Your task to perform on an android device: turn on javascript in the chrome app Image 0: 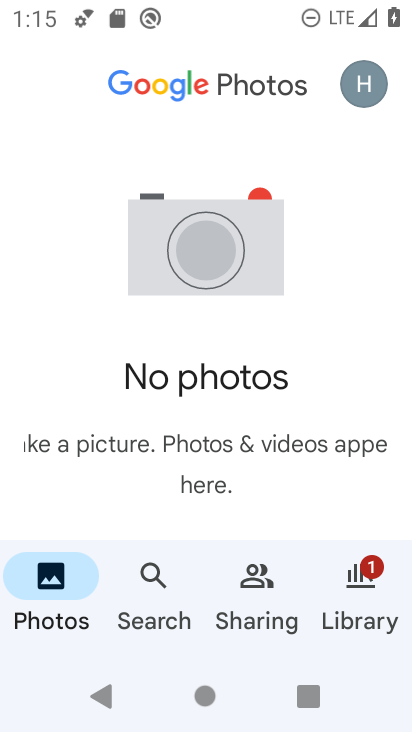
Step 0: press home button
Your task to perform on an android device: turn on javascript in the chrome app Image 1: 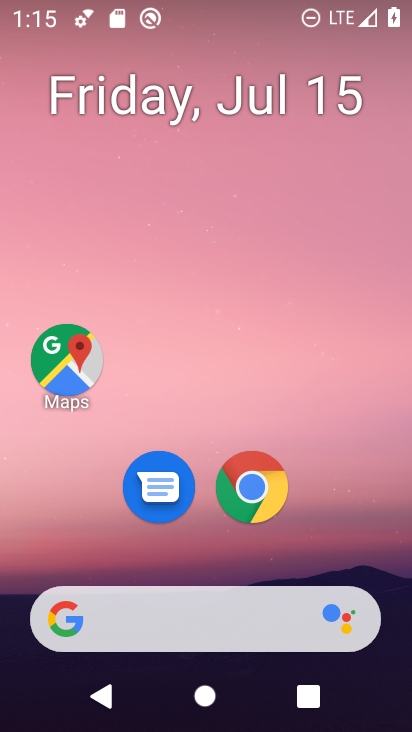
Step 1: click (266, 512)
Your task to perform on an android device: turn on javascript in the chrome app Image 2: 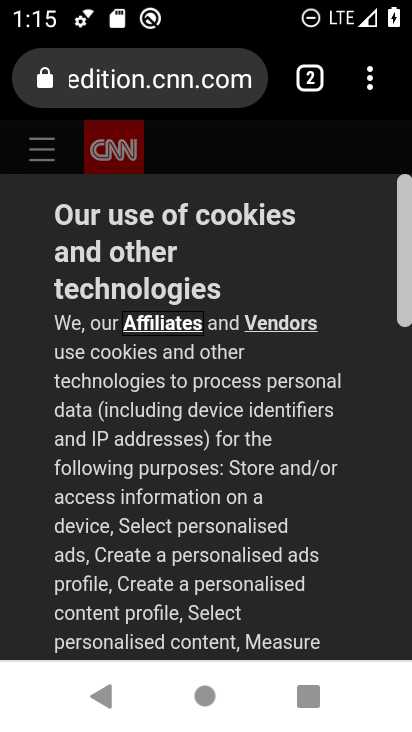
Step 2: click (373, 95)
Your task to perform on an android device: turn on javascript in the chrome app Image 3: 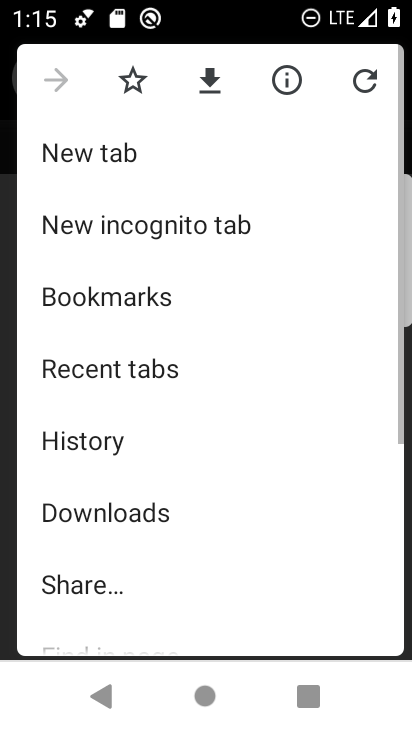
Step 3: drag from (211, 469) to (231, 246)
Your task to perform on an android device: turn on javascript in the chrome app Image 4: 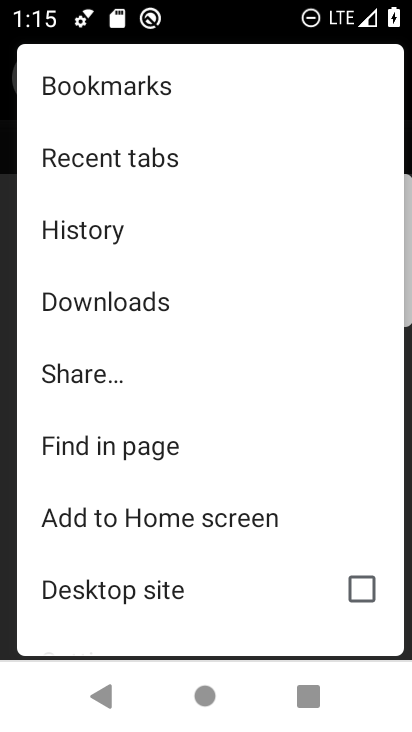
Step 4: drag from (207, 534) to (220, 308)
Your task to perform on an android device: turn on javascript in the chrome app Image 5: 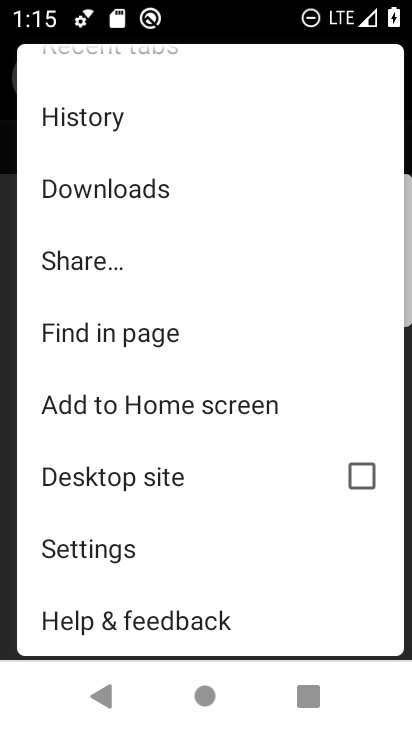
Step 5: drag from (118, 541) to (171, 163)
Your task to perform on an android device: turn on javascript in the chrome app Image 6: 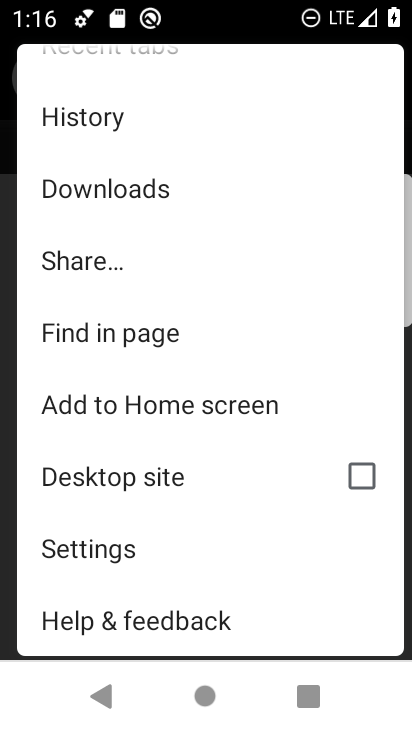
Step 6: click (151, 566)
Your task to perform on an android device: turn on javascript in the chrome app Image 7: 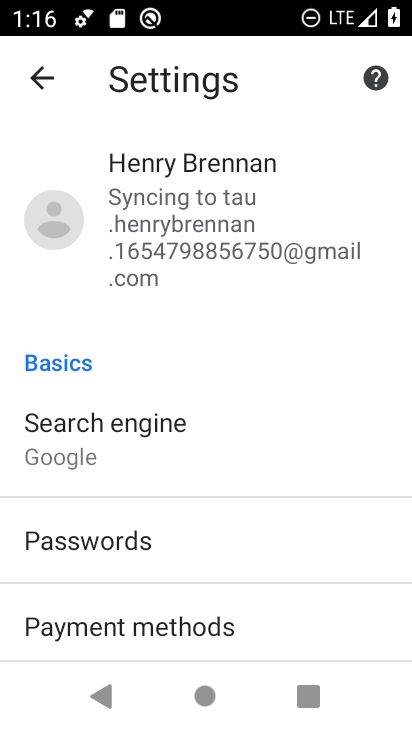
Step 7: drag from (162, 612) to (230, 301)
Your task to perform on an android device: turn on javascript in the chrome app Image 8: 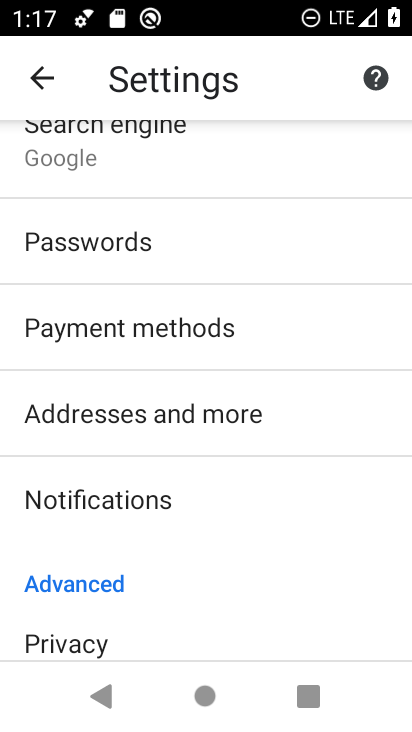
Step 8: drag from (127, 584) to (169, 195)
Your task to perform on an android device: turn on javascript in the chrome app Image 9: 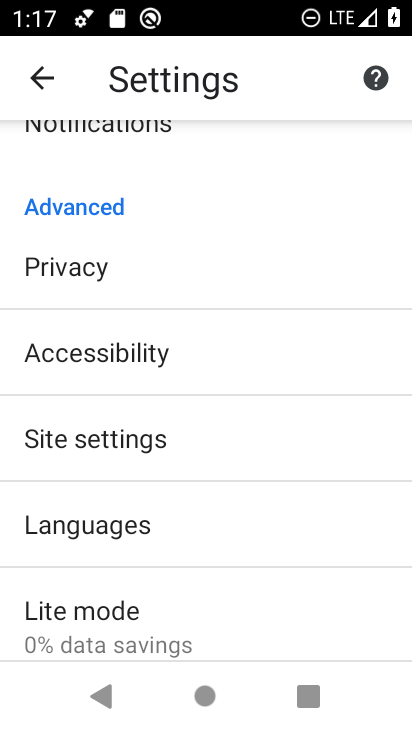
Step 9: click (110, 447)
Your task to perform on an android device: turn on javascript in the chrome app Image 10: 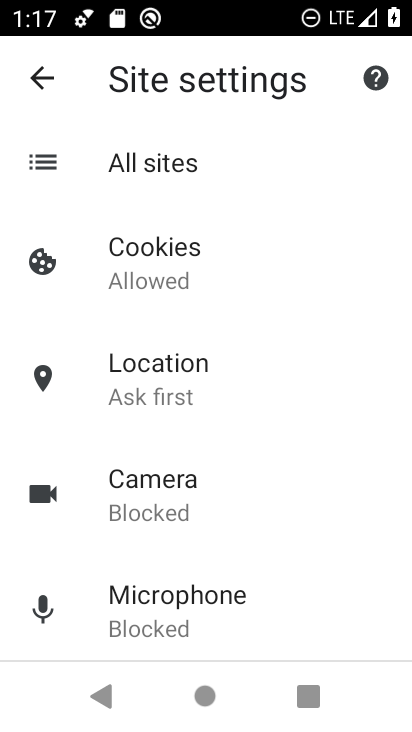
Step 10: drag from (177, 544) to (214, 210)
Your task to perform on an android device: turn on javascript in the chrome app Image 11: 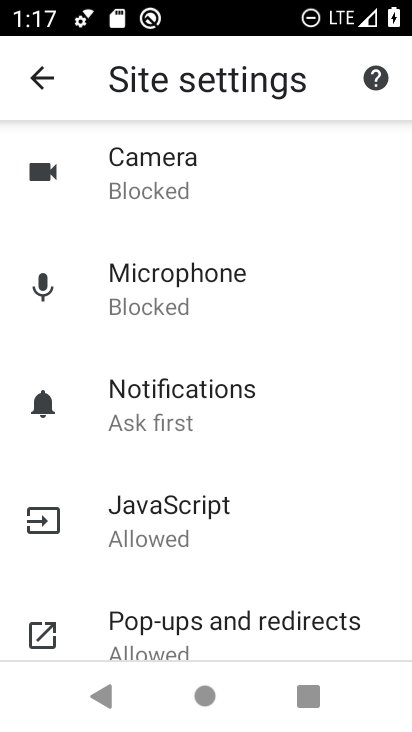
Step 11: click (237, 522)
Your task to perform on an android device: turn on javascript in the chrome app Image 12: 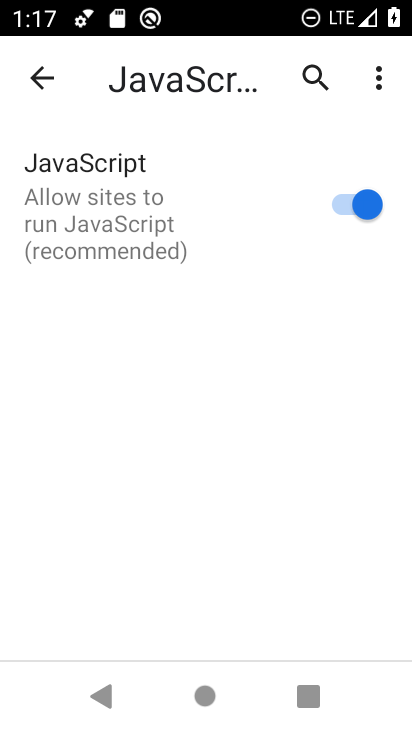
Step 12: task complete